Your task to perform on an android device: Search for Italian restaurants on Maps Image 0: 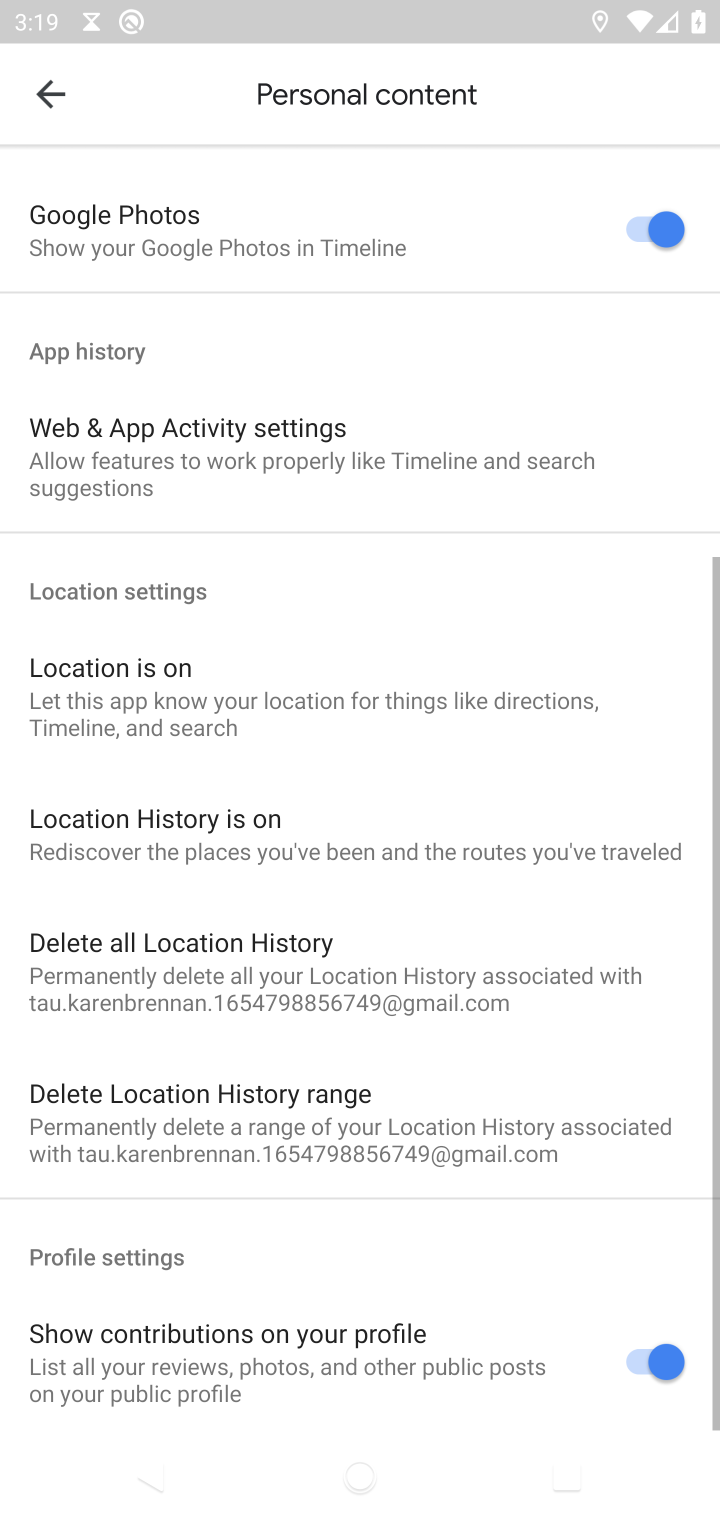
Step 0: press home button
Your task to perform on an android device: Search for Italian restaurants on Maps Image 1: 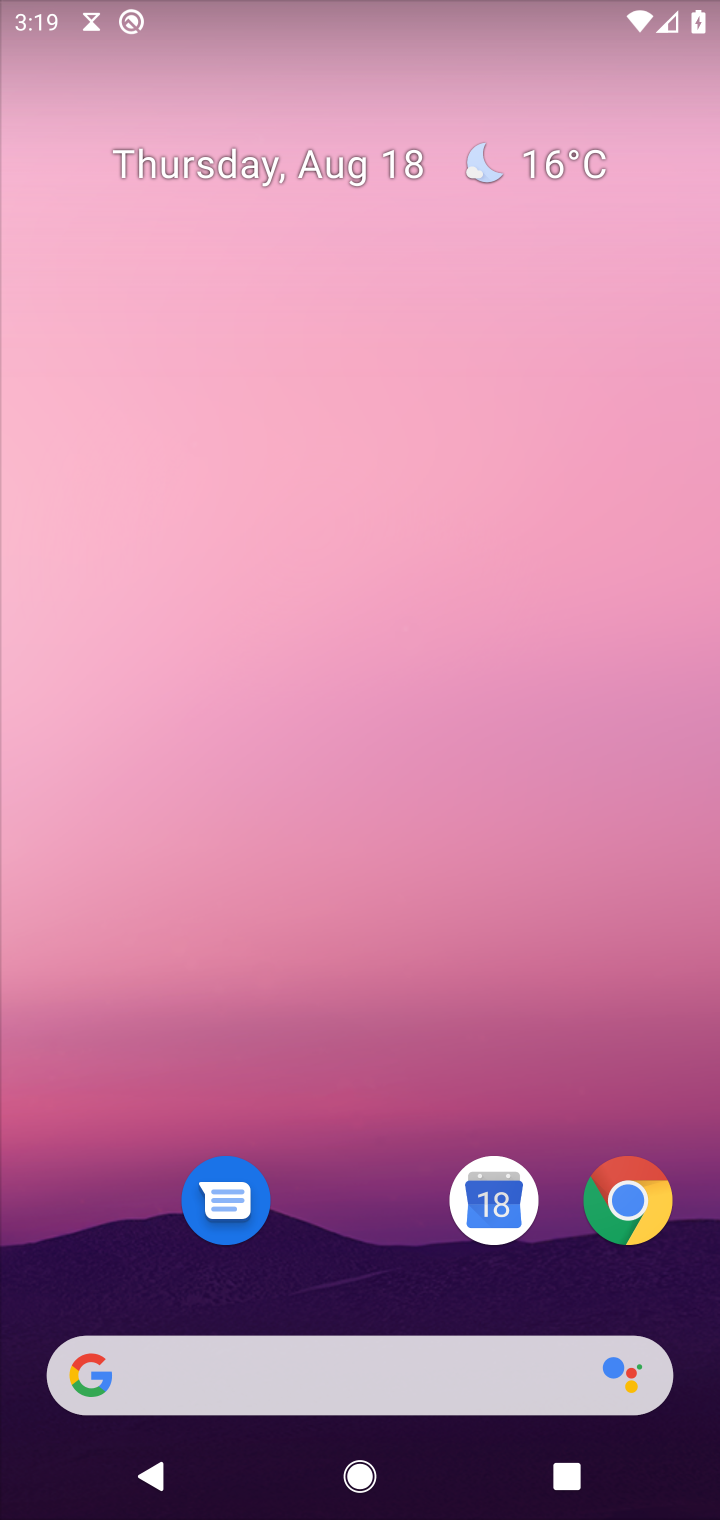
Step 1: drag from (326, 1203) to (377, 226)
Your task to perform on an android device: Search for Italian restaurants on Maps Image 2: 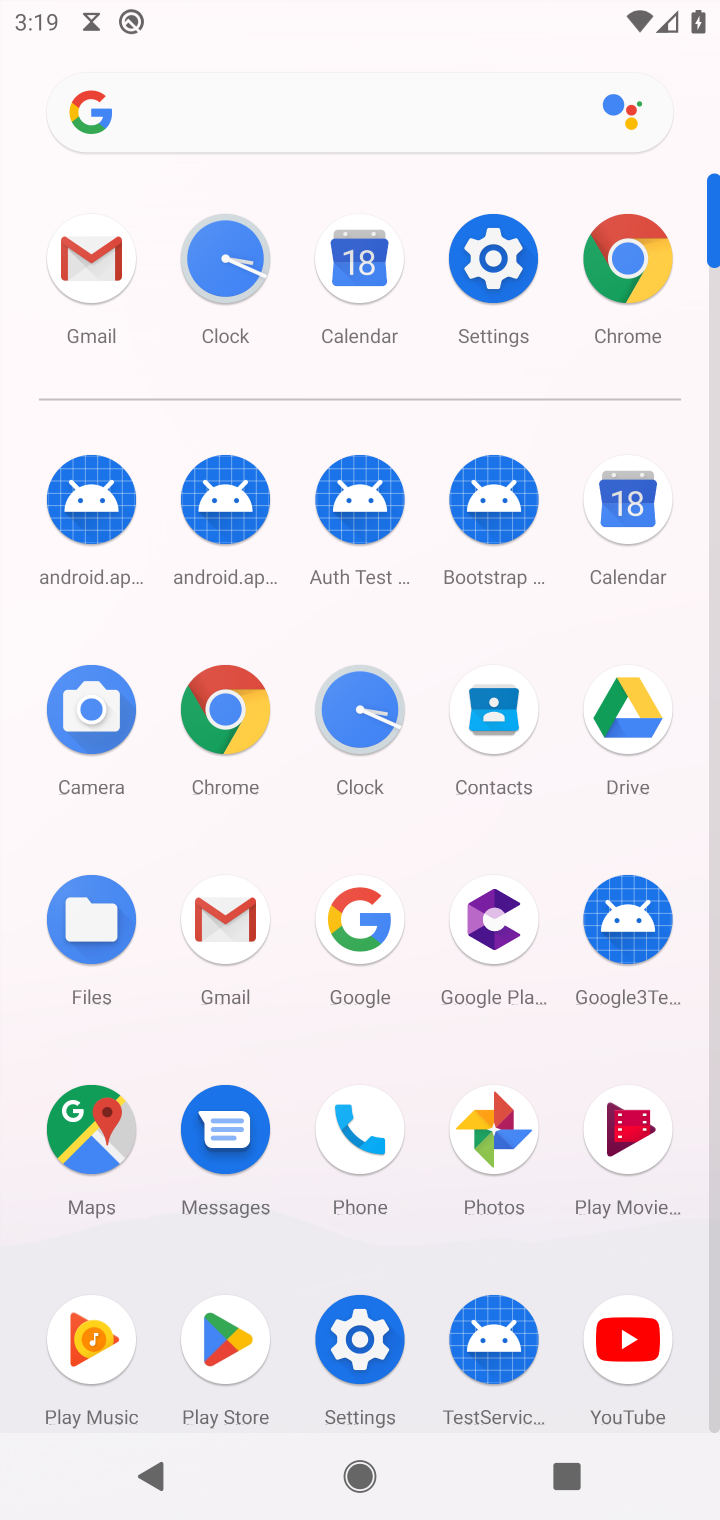
Step 2: click (105, 1111)
Your task to perform on an android device: Search for Italian restaurants on Maps Image 3: 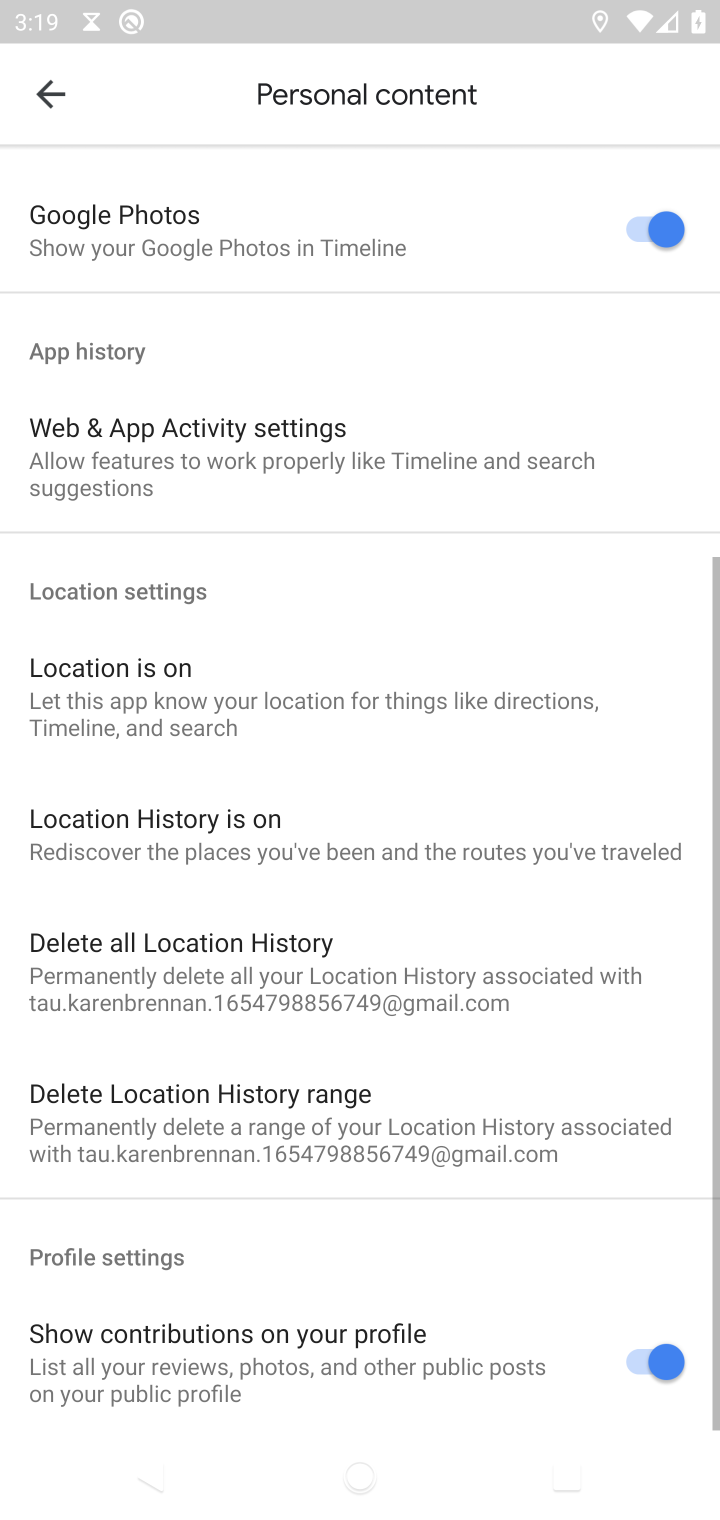
Step 3: click (53, 74)
Your task to perform on an android device: Search for Italian restaurants on Maps Image 4: 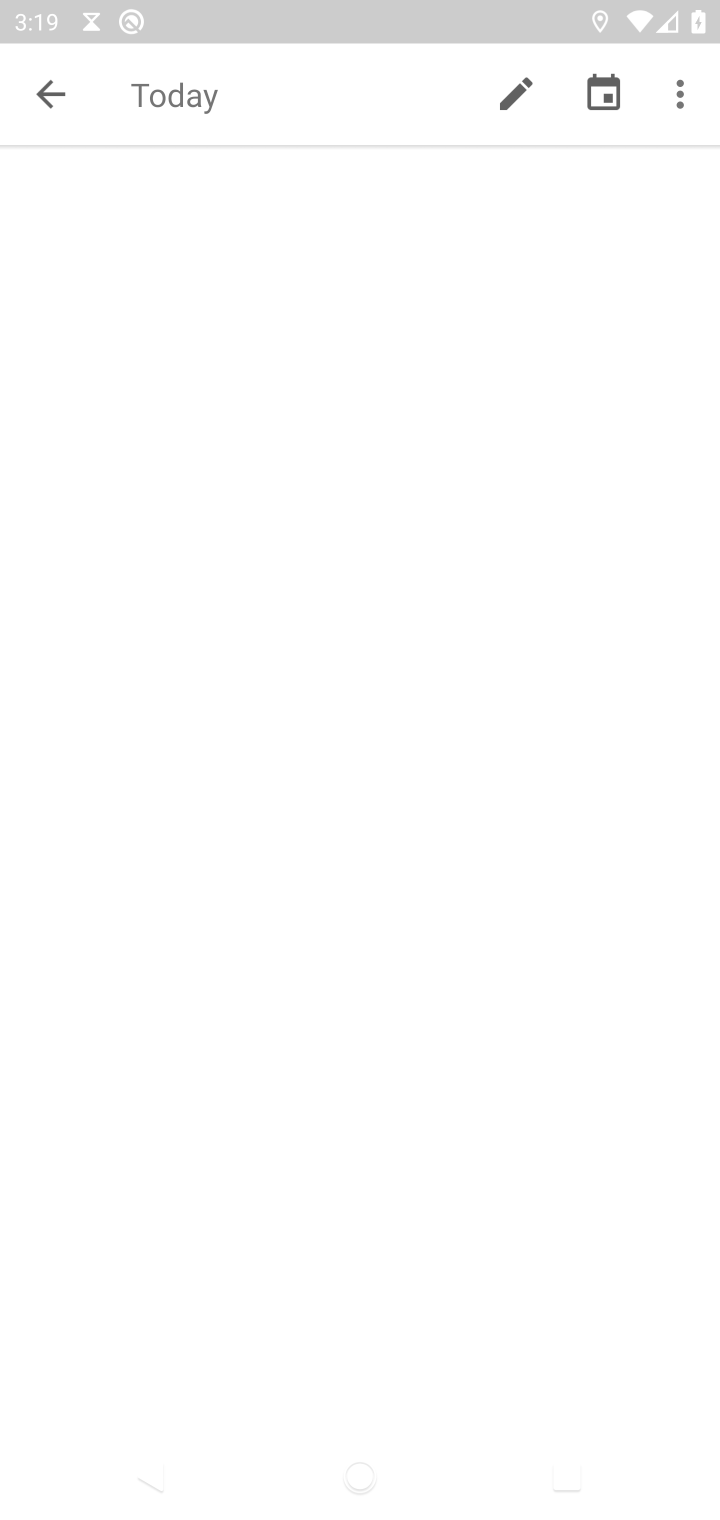
Step 4: click (53, 74)
Your task to perform on an android device: Search for Italian restaurants on Maps Image 5: 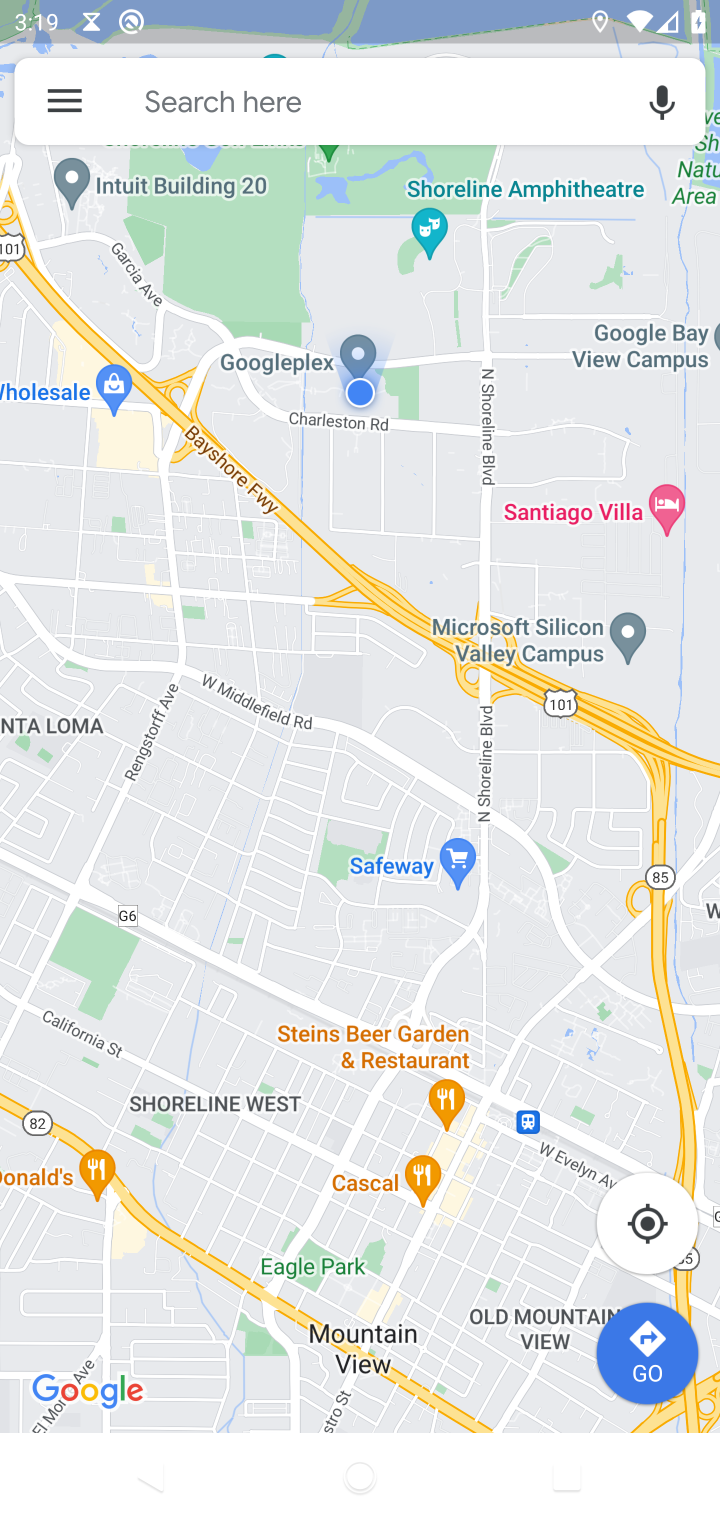
Step 5: click (212, 104)
Your task to perform on an android device: Search for Italian restaurants on Maps Image 6: 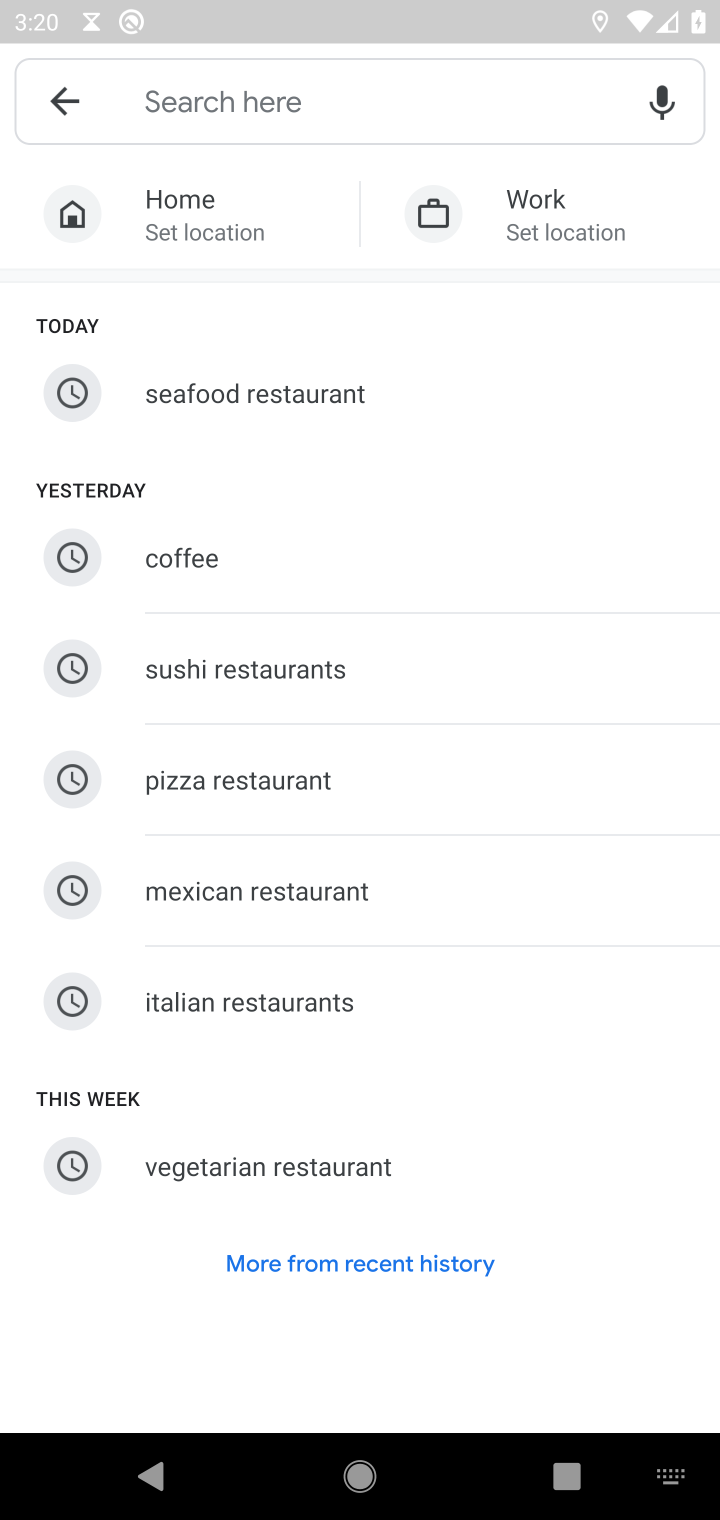
Step 6: type " Italian restaurants"
Your task to perform on an android device: Search for Italian restaurants on Maps Image 7: 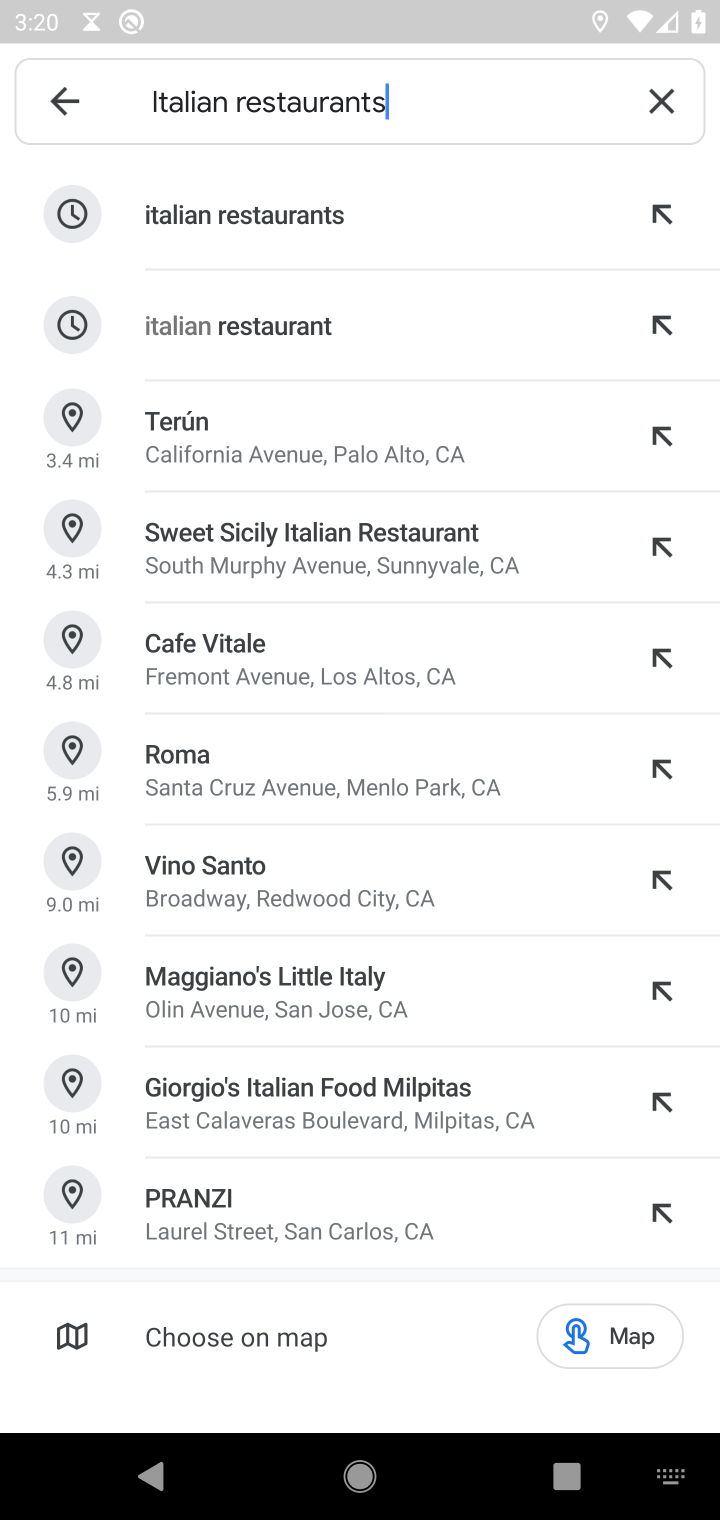
Step 7: click (209, 220)
Your task to perform on an android device: Search for Italian restaurants on Maps Image 8: 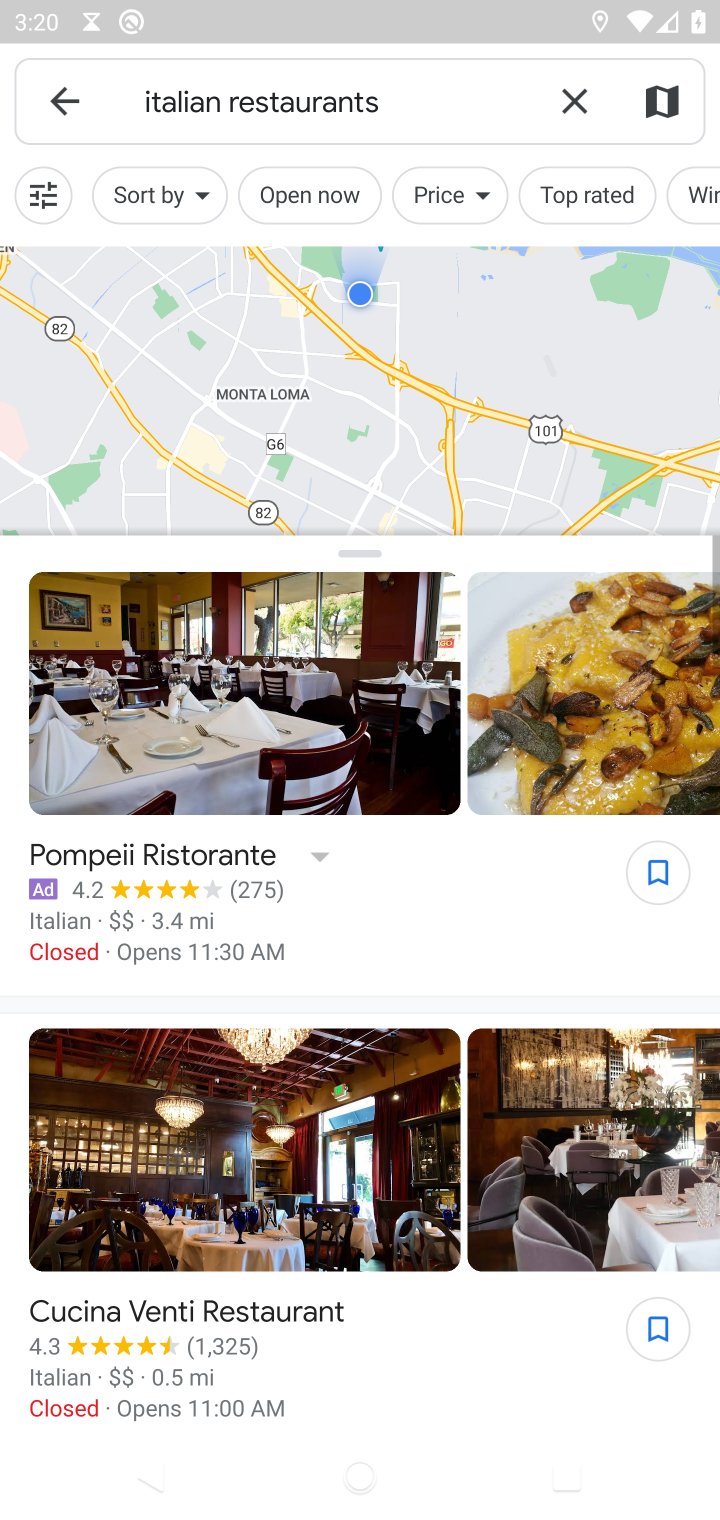
Step 8: task complete